Your task to perform on an android device: Open network settings Image 0: 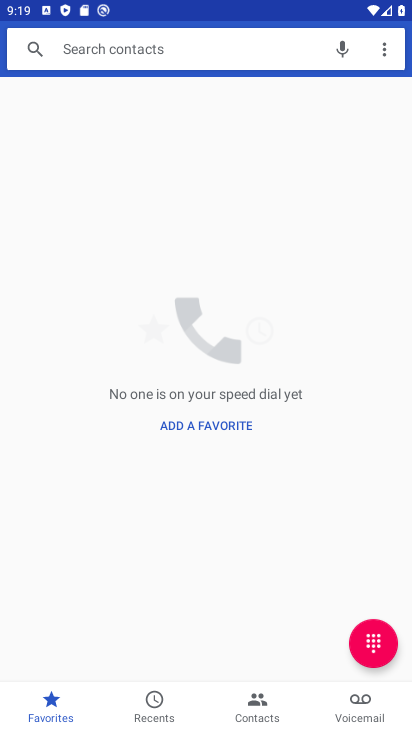
Step 0: task complete